Your task to perform on an android device: What is the news today? Image 0: 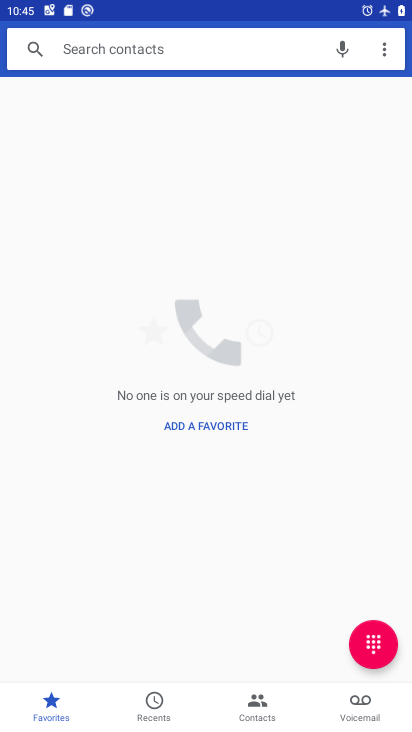
Step 0: press home button
Your task to perform on an android device: What is the news today? Image 1: 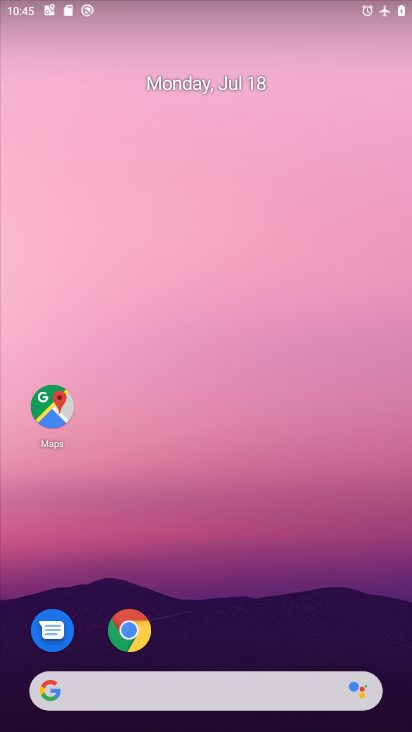
Step 1: drag from (244, 586) to (242, 2)
Your task to perform on an android device: What is the news today? Image 2: 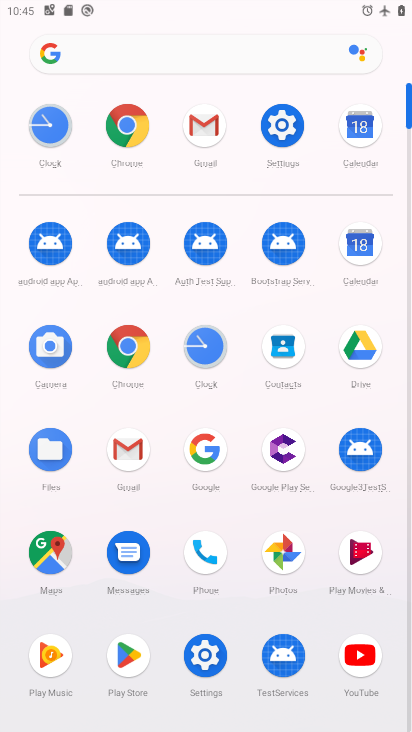
Step 2: click (202, 443)
Your task to perform on an android device: What is the news today? Image 3: 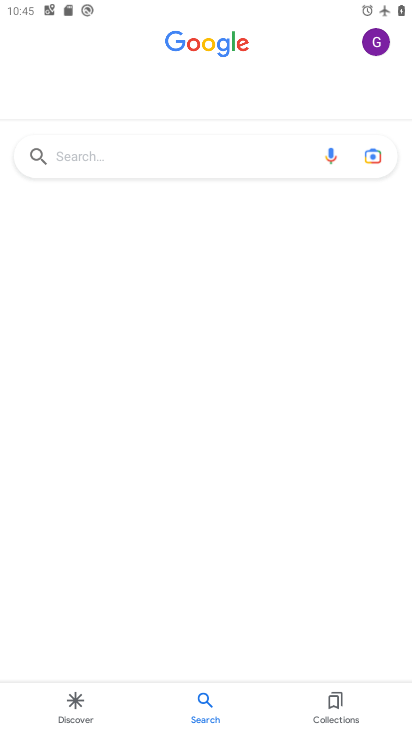
Step 3: click (114, 144)
Your task to perform on an android device: What is the news today? Image 4: 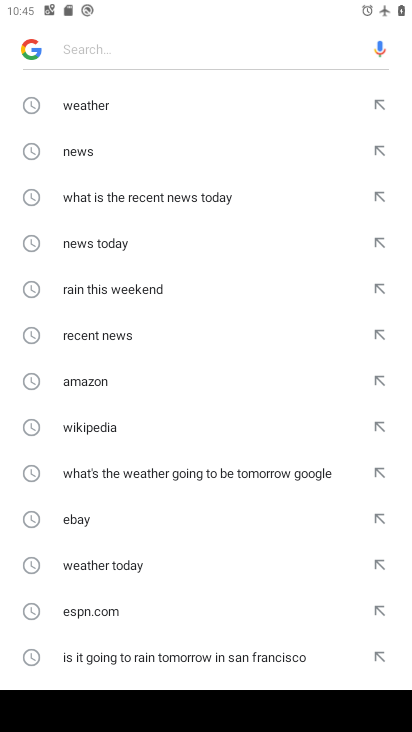
Step 4: click (103, 157)
Your task to perform on an android device: What is the news today? Image 5: 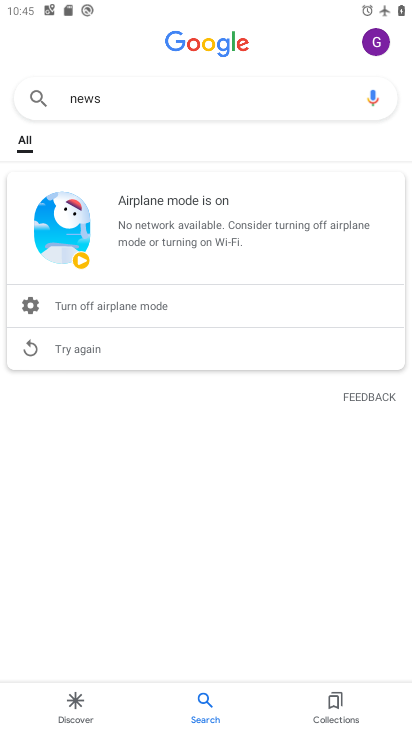
Step 5: task complete